Your task to perform on an android device: Open Chrome and go to settings Image 0: 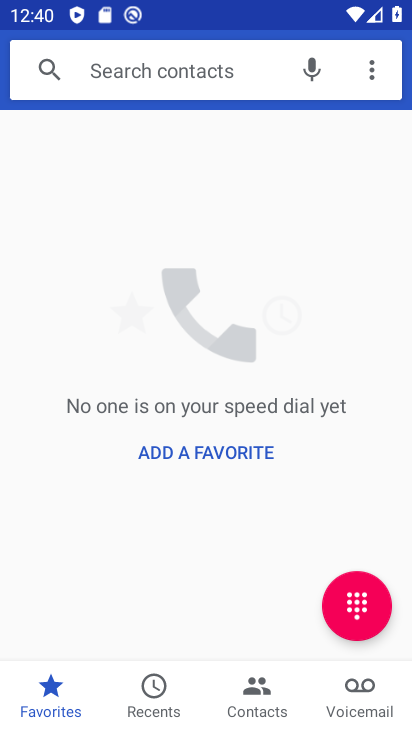
Step 0: press home button
Your task to perform on an android device: Open Chrome and go to settings Image 1: 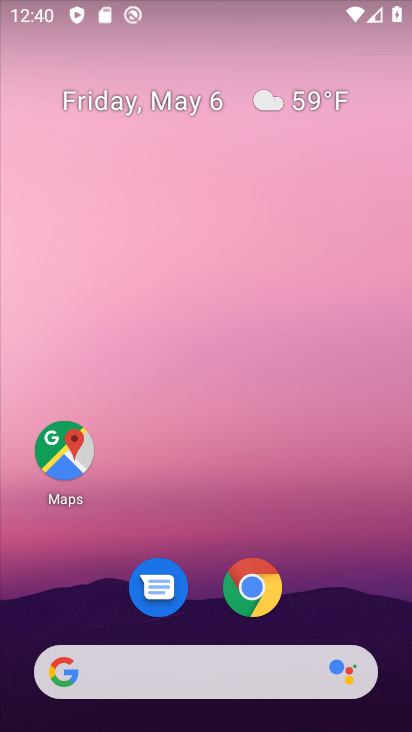
Step 1: drag from (192, 627) to (325, 204)
Your task to perform on an android device: Open Chrome and go to settings Image 2: 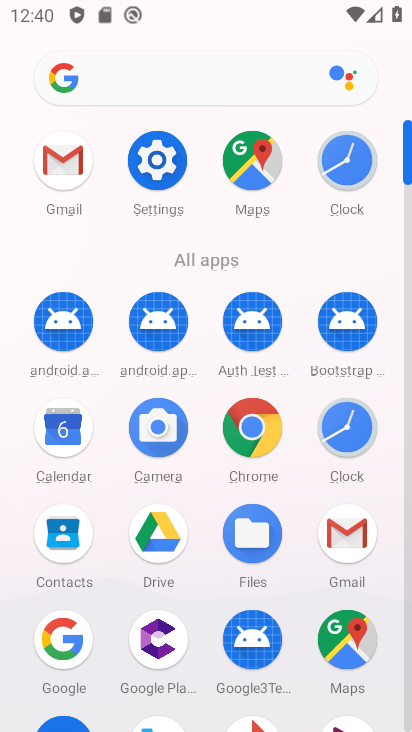
Step 2: click (266, 449)
Your task to perform on an android device: Open Chrome and go to settings Image 3: 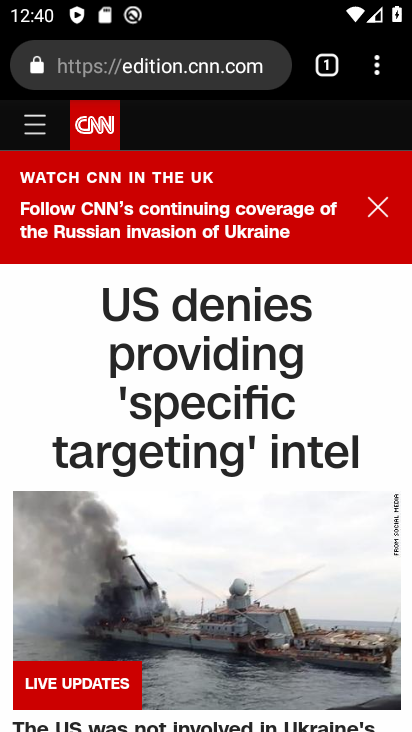
Step 3: click (380, 74)
Your task to perform on an android device: Open Chrome and go to settings Image 4: 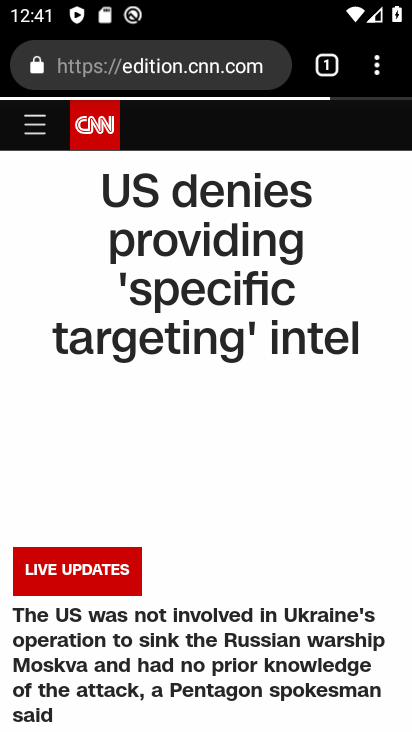
Step 4: click (380, 74)
Your task to perform on an android device: Open Chrome and go to settings Image 5: 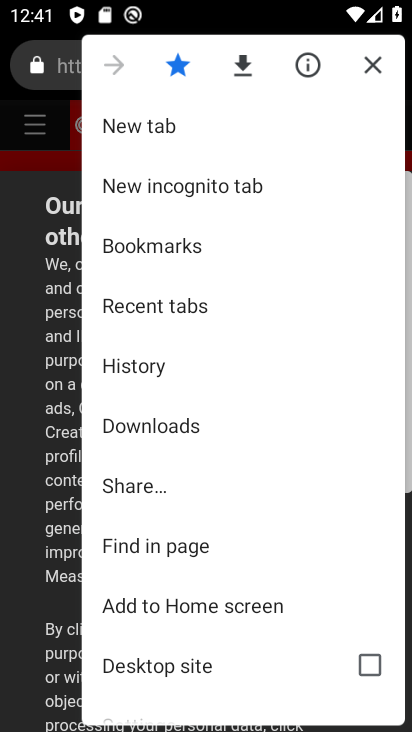
Step 5: drag from (220, 503) to (259, 139)
Your task to perform on an android device: Open Chrome and go to settings Image 6: 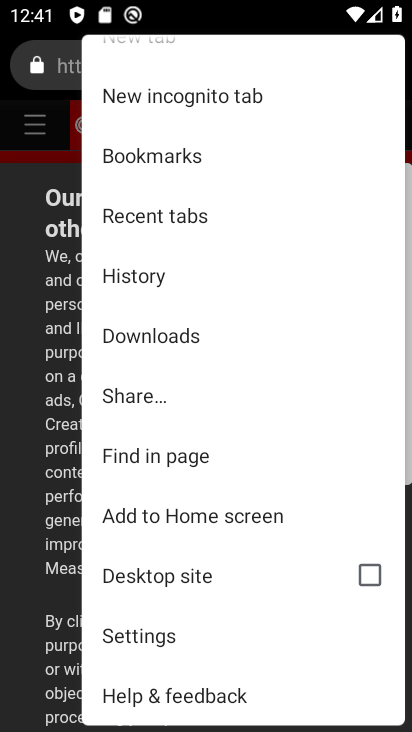
Step 6: click (184, 635)
Your task to perform on an android device: Open Chrome and go to settings Image 7: 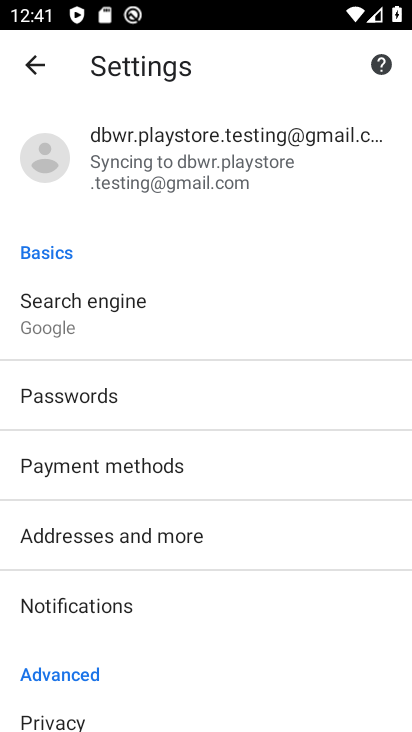
Step 7: drag from (183, 560) to (226, 261)
Your task to perform on an android device: Open Chrome and go to settings Image 8: 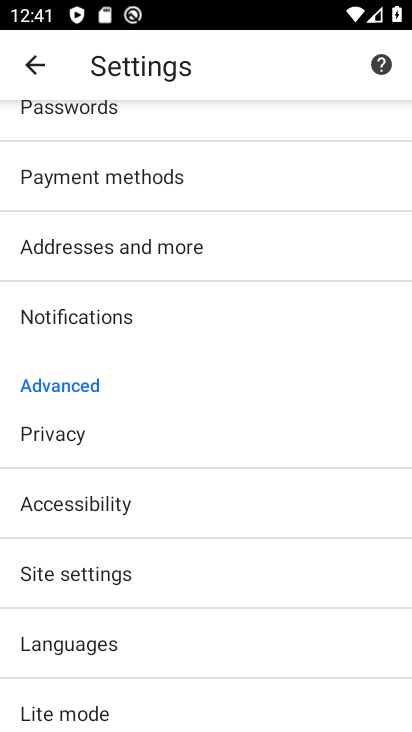
Step 8: drag from (126, 526) to (187, 292)
Your task to perform on an android device: Open Chrome and go to settings Image 9: 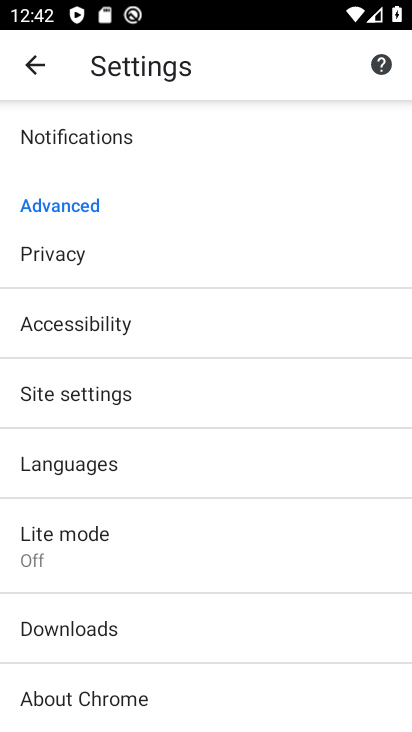
Step 9: click (99, 397)
Your task to perform on an android device: Open Chrome and go to settings Image 10: 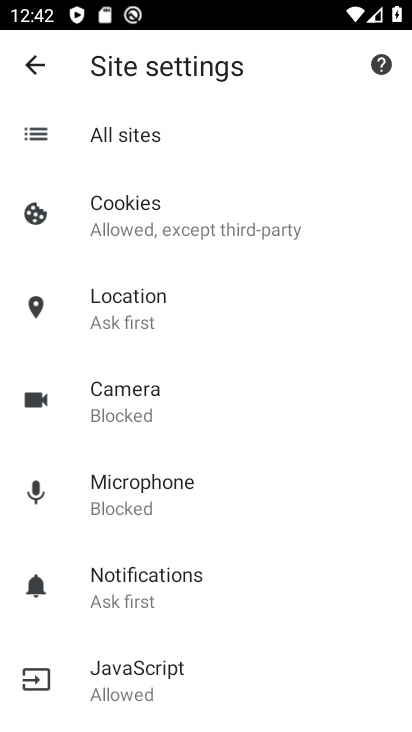
Step 10: task complete